Your task to perform on an android device: Open Android settings Image 0: 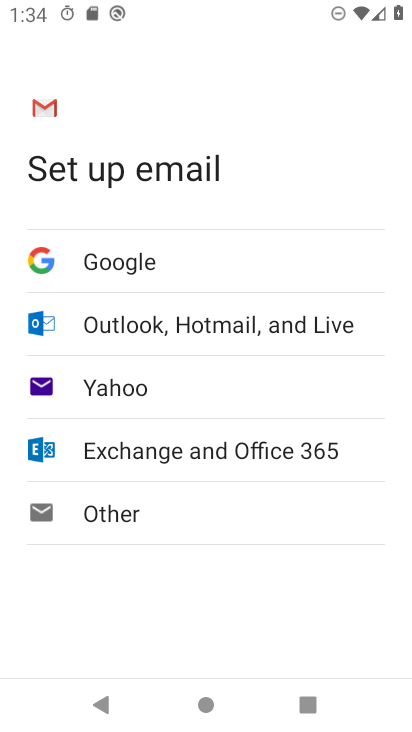
Step 0: press home button
Your task to perform on an android device: Open Android settings Image 1: 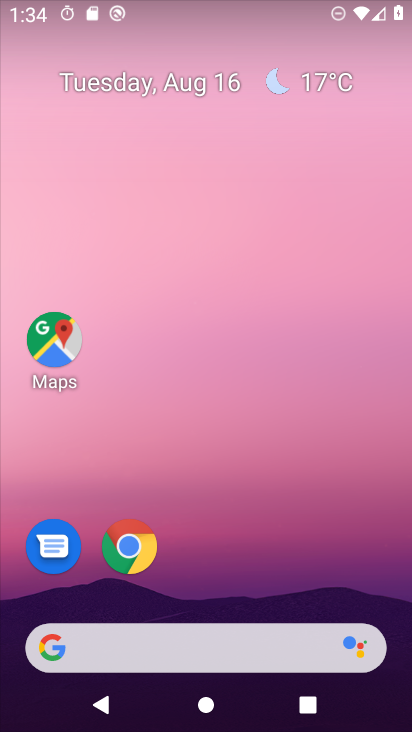
Step 1: drag from (236, 616) to (223, 132)
Your task to perform on an android device: Open Android settings Image 2: 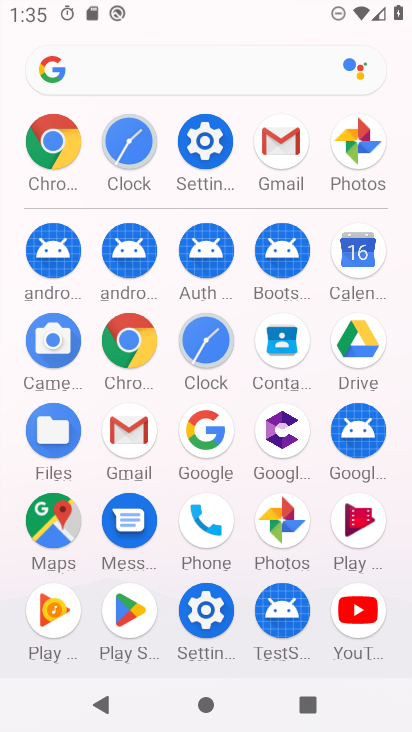
Step 2: click (195, 154)
Your task to perform on an android device: Open Android settings Image 3: 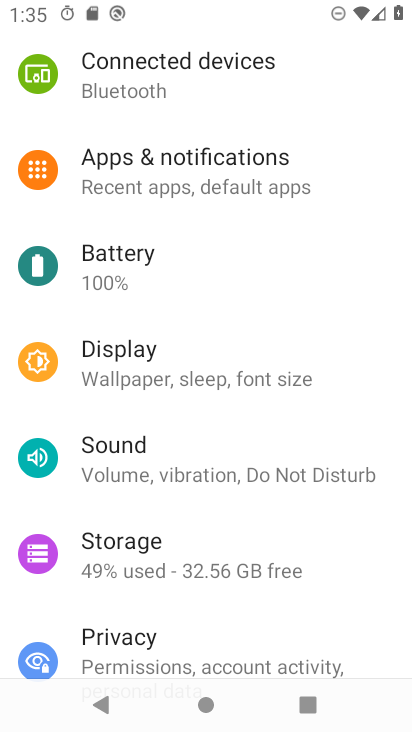
Step 3: task complete